Your task to perform on an android device: Open calendar and show me the fourth week of next month Image 0: 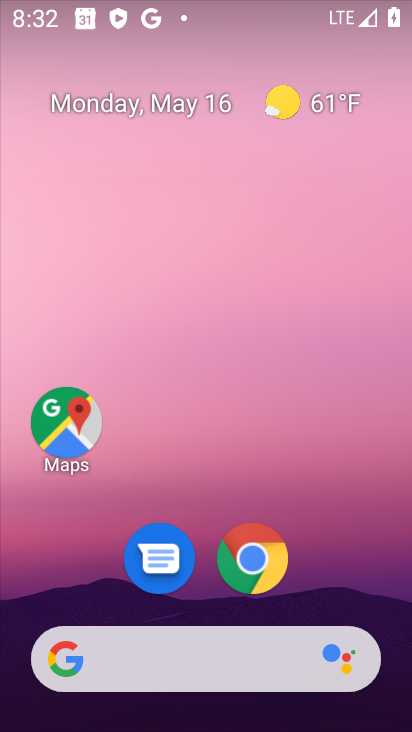
Step 0: drag from (207, 607) to (275, 103)
Your task to perform on an android device: Open calendar and show me the fourth week of next month Image 1: 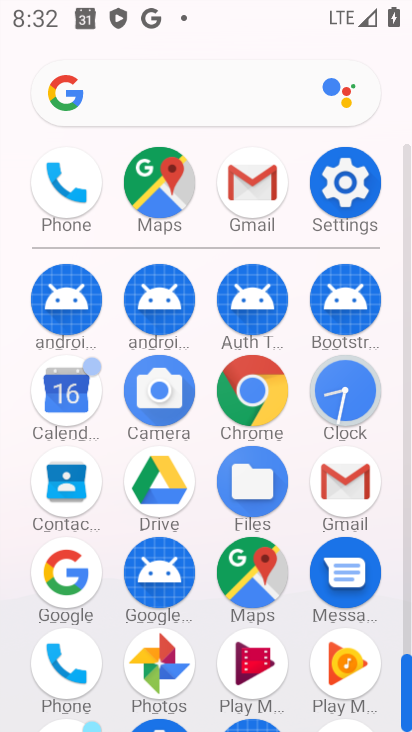
Step 1: click (65, 397)
Your task to perform on an android device: Open calendar and show me the fourth week of next month Image 2: 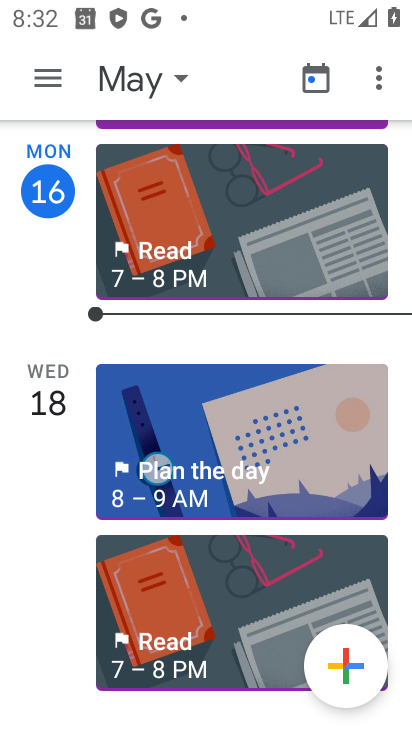
Step 2: click (159, 84)
Your task to perform on an android device: Open calendar and show me the fourth week of next month Image 3: 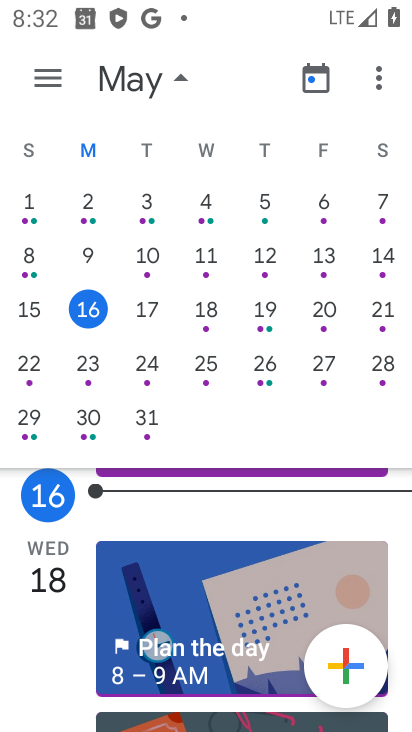
Step 3: drag from (390, 277) to (35, 218)
Your task to perform on an android device: Open calendar and show me the fourth week of next month Image 4: 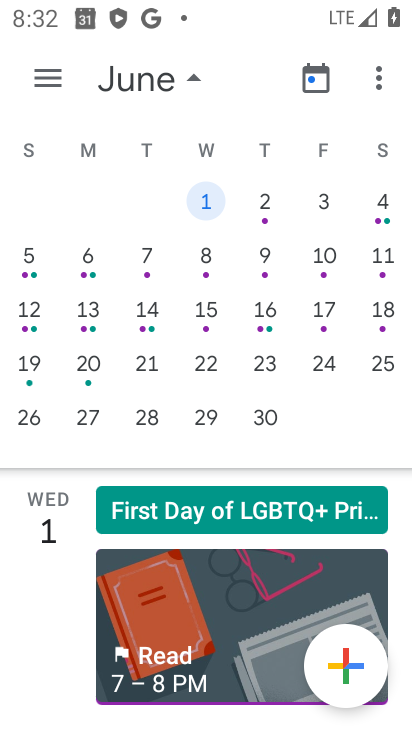
Step 4: click (87, 365)
Your task to perform on an android device: Open calendar and show me the fourth week of next month Image 5: 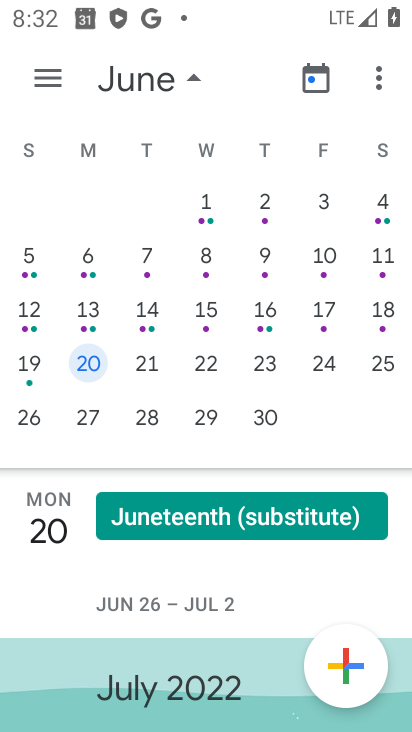
Step 5: task complete